Your task to perform on an android device: What's the US dollar exchange rate against the Euro? Image 0: 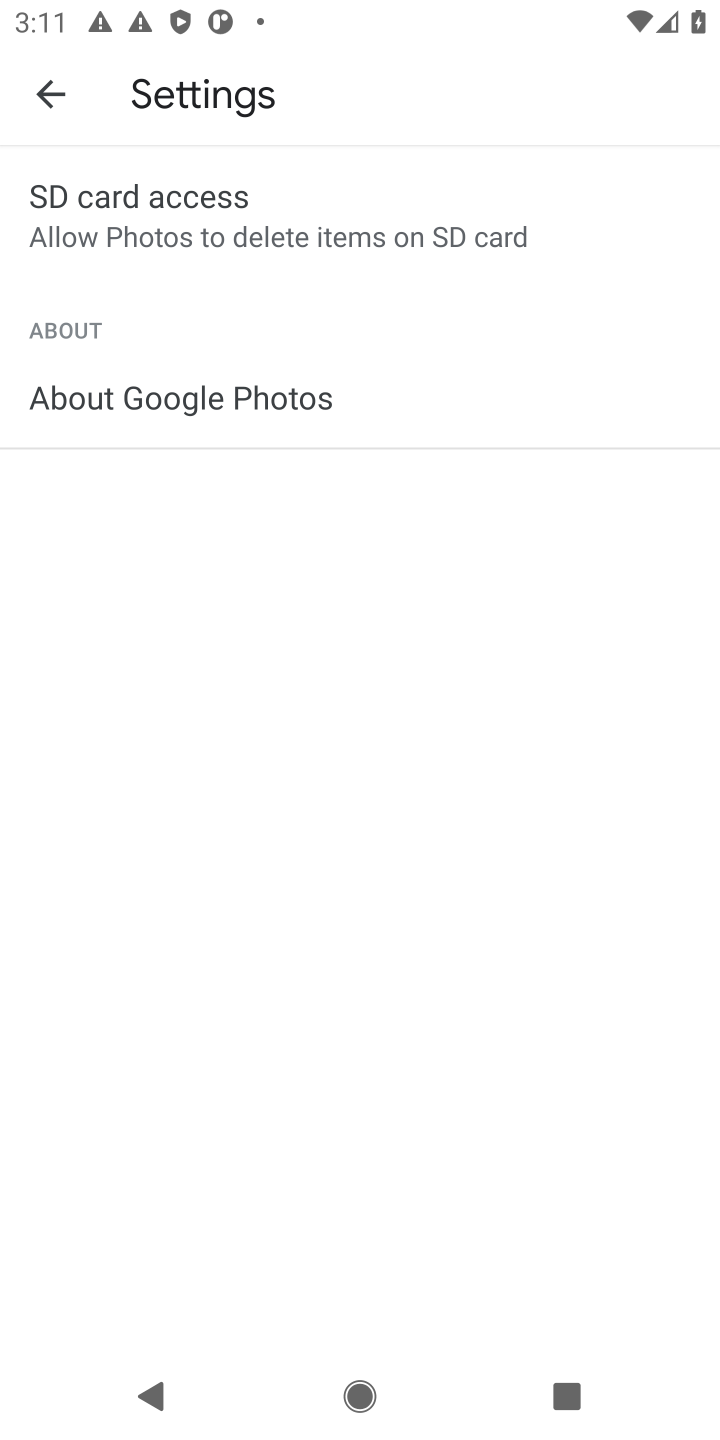
Step 0: press home button
Your task to perform on an android device: What's the US dollar exchange rate against the Euro? Image 1: 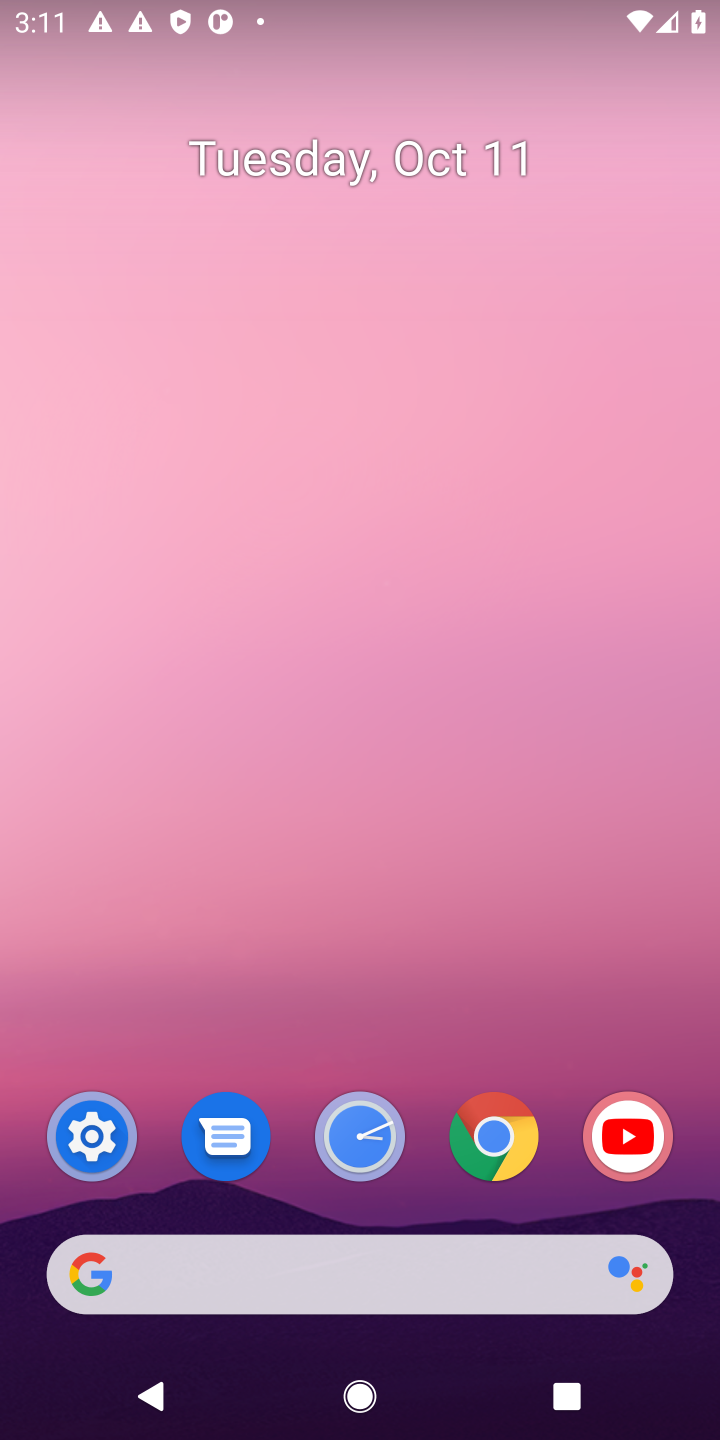
Step 1: click (489, 1134)
Your task to perform on an android device: What's the US dollar exchange rate against the Euro? Image 2: 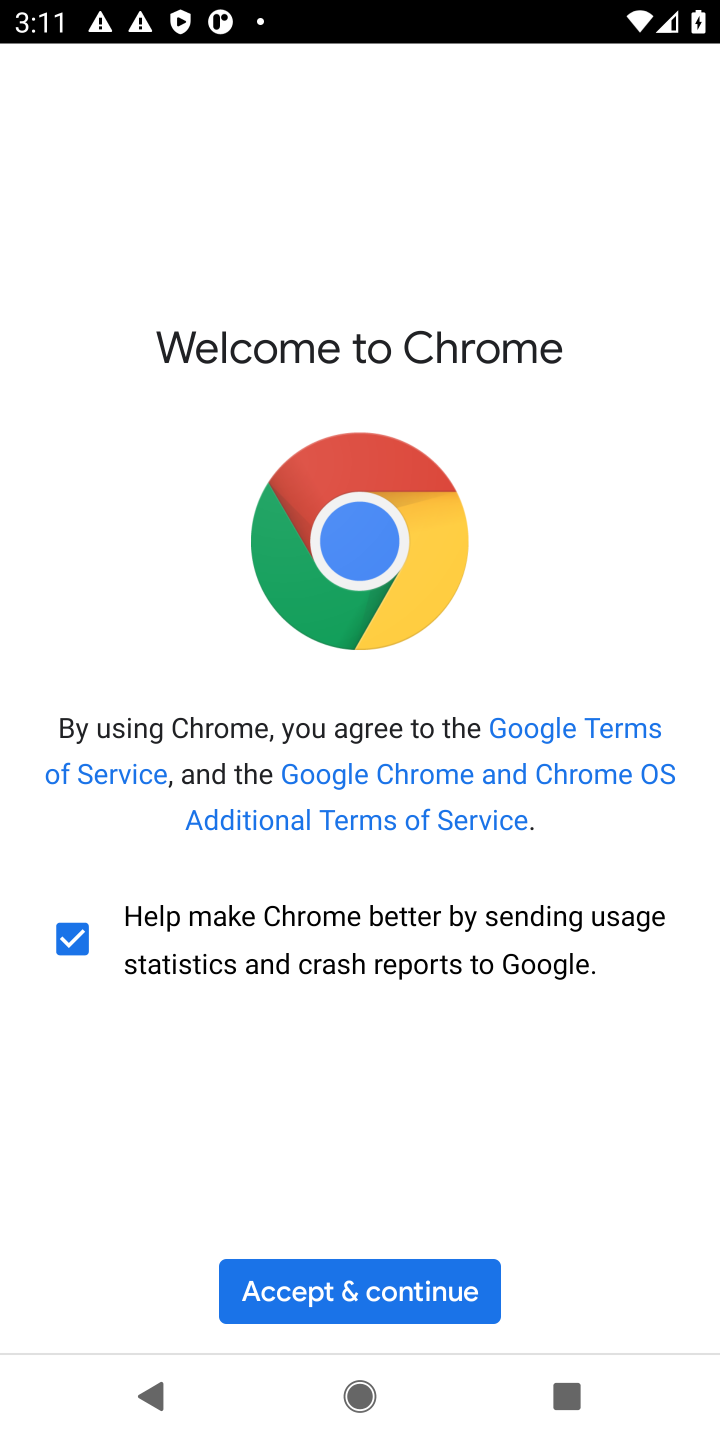
Step 2: click (386, 1294)
Your task to perform on an android device: What's the US dollar exchange rate against the Euro? Image 3: 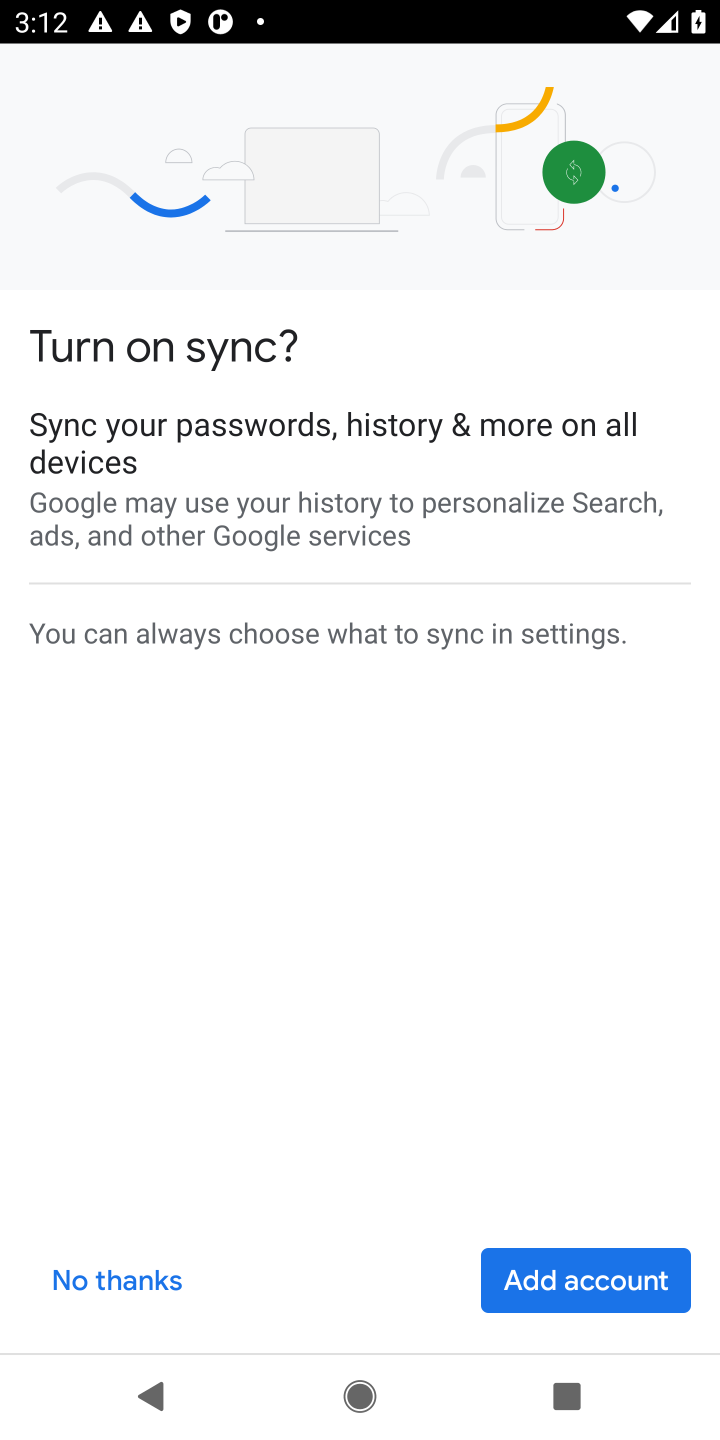
Step 3: click (96, 1277)
Your task to perform on an android device: What's the US dollar exchange rate against the Euro? Image 4: 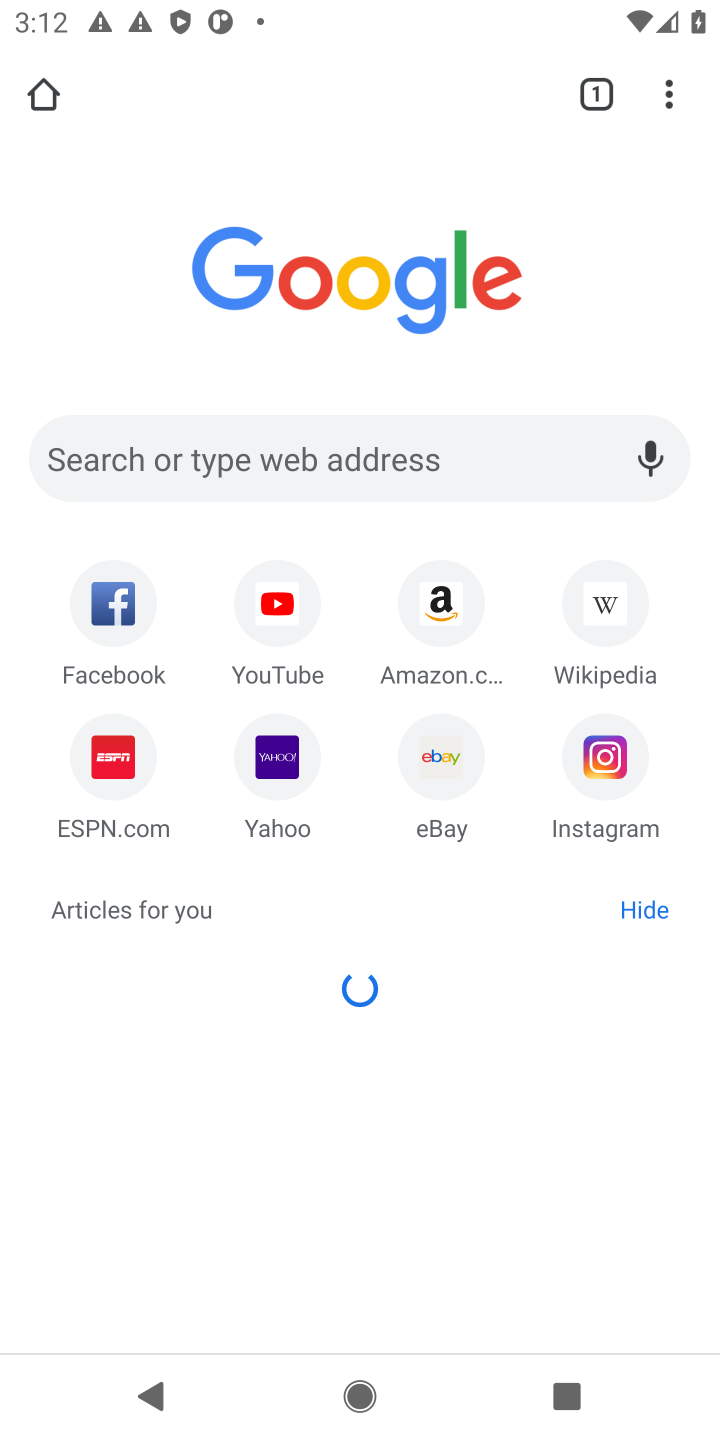
Step 4: click (359, 444)
Your task to perform on an android device: What's the US dollar exchange rate against the Euro? Image 5: 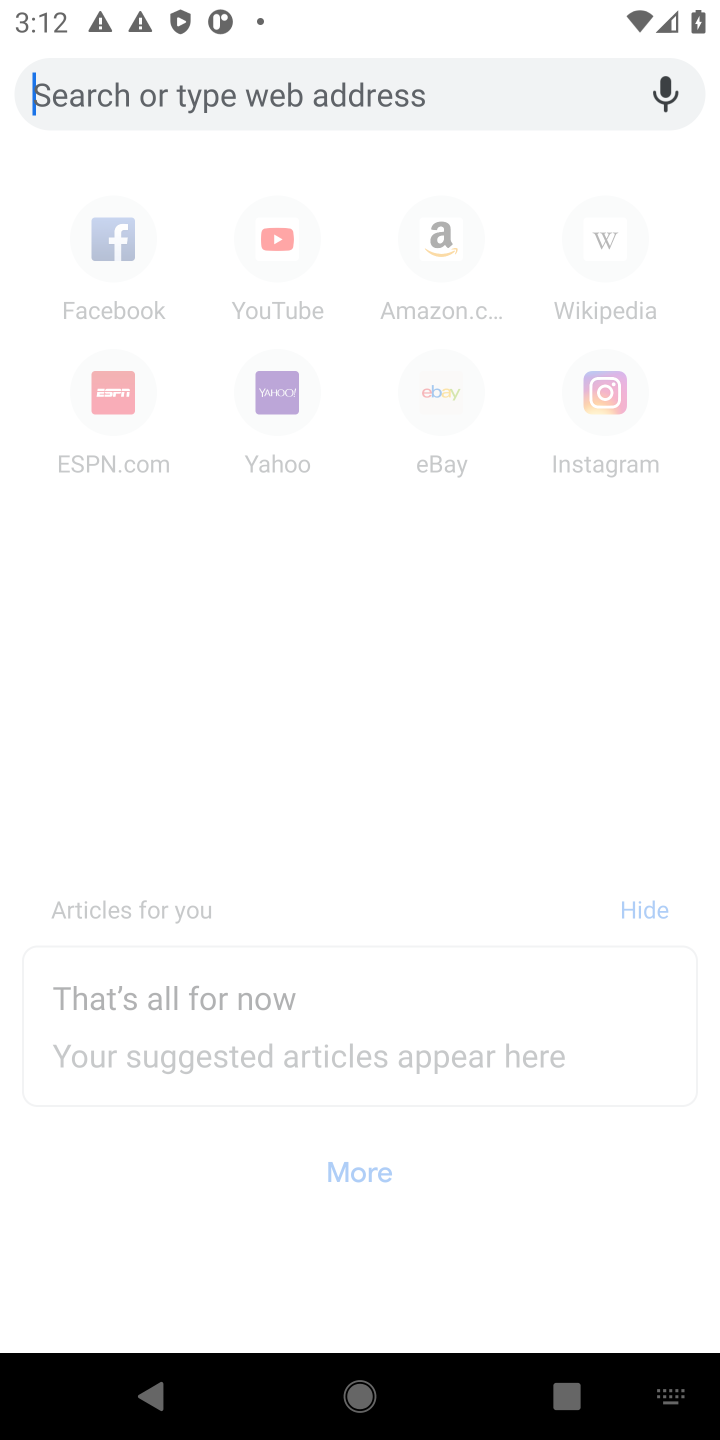
Step 5: type "US dollar exchange rate against the euro"
Your task to perform on an android device: What's the US dollar exchange rate against the Euro? Image 6: 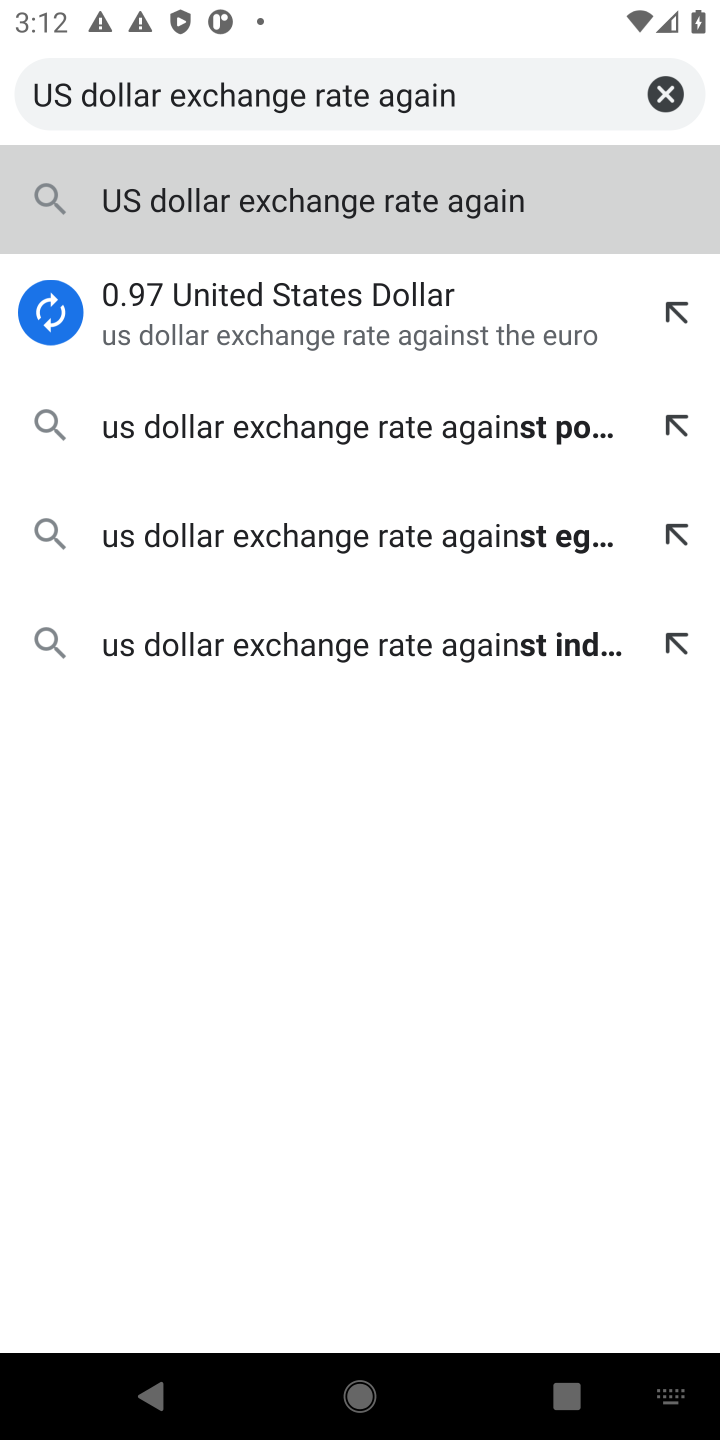
Step 6: click (287, 298)
Your task to perform on an android device: What's the US dollar exchange rate against the Euro? Image 7: 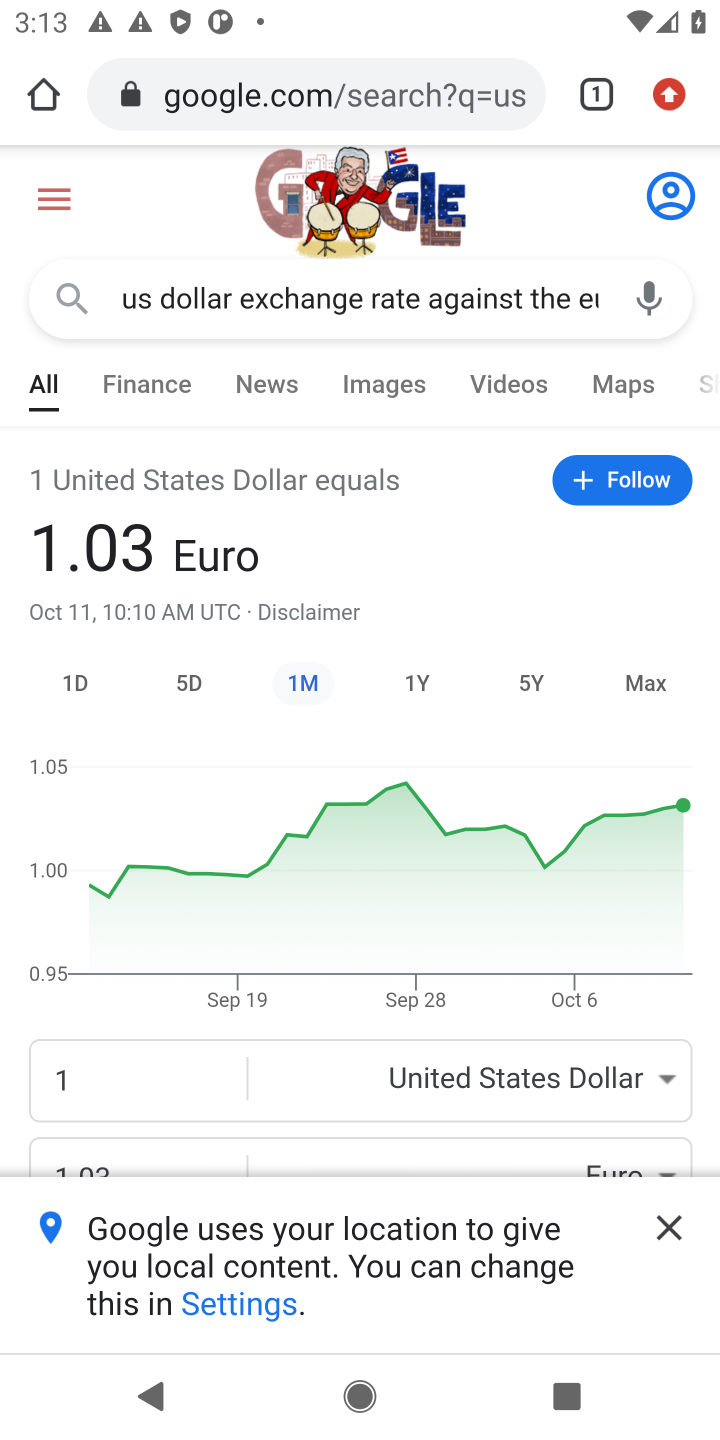
Step 7: task complete